Your task to perform on an android device: Go to Android settings Image 0: 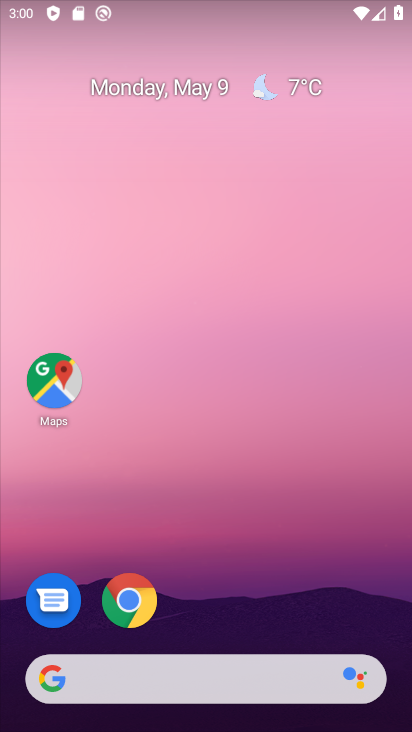
Step 0: drag from (234, 507) to (274, 3)
Your task to perform on an android device: Go to Android settings Image 1: 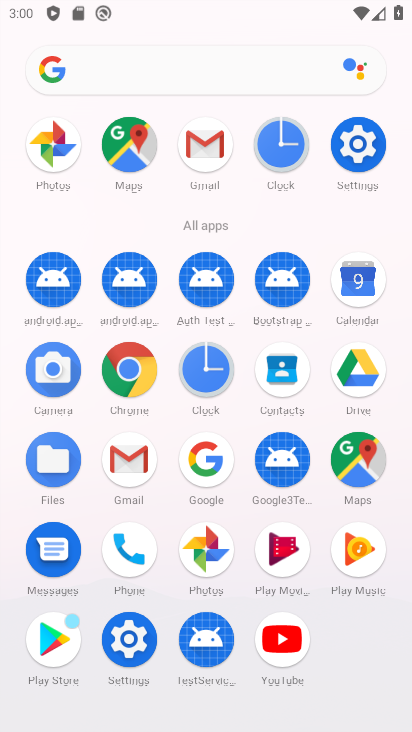
Step 1: click (359, 139)
Your task to perform on an android device: Go to Android settings Image 2: 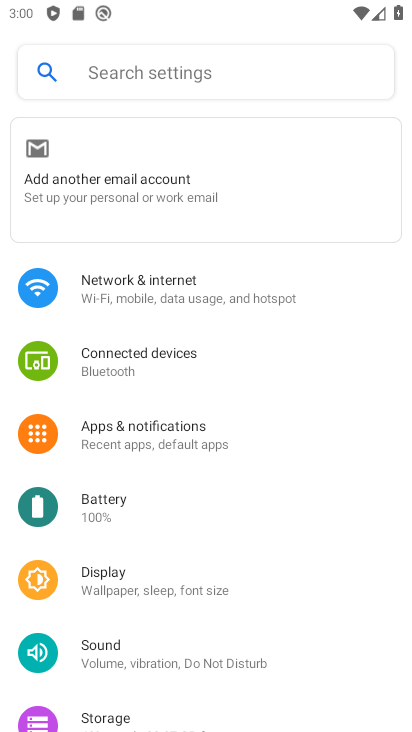
Step 2: task complete